Your task to perform on an android device: Add "sony triple a" to the cart on ebay Image 0: 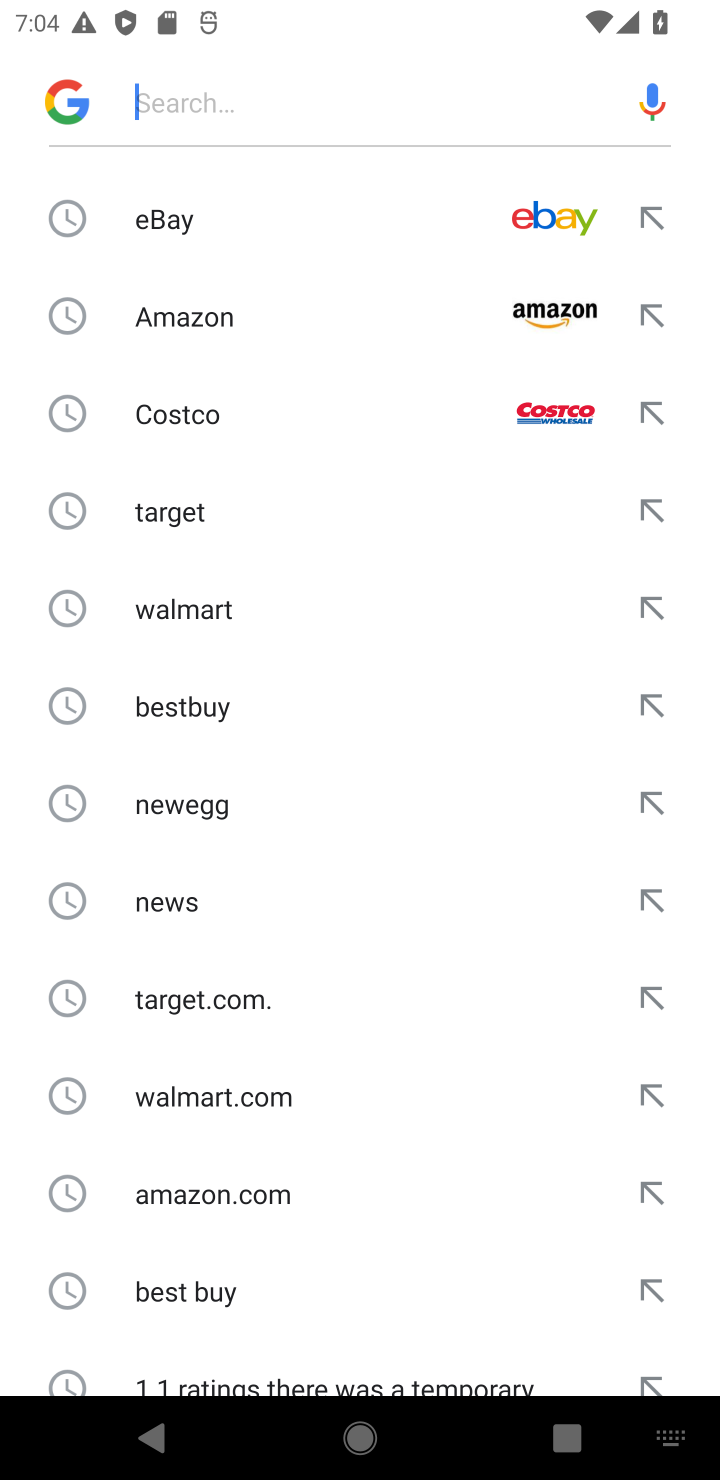
Step 0: press home button
Your task to perform on an android device: Add "sony triple a" to the cart on ebay Image 1: 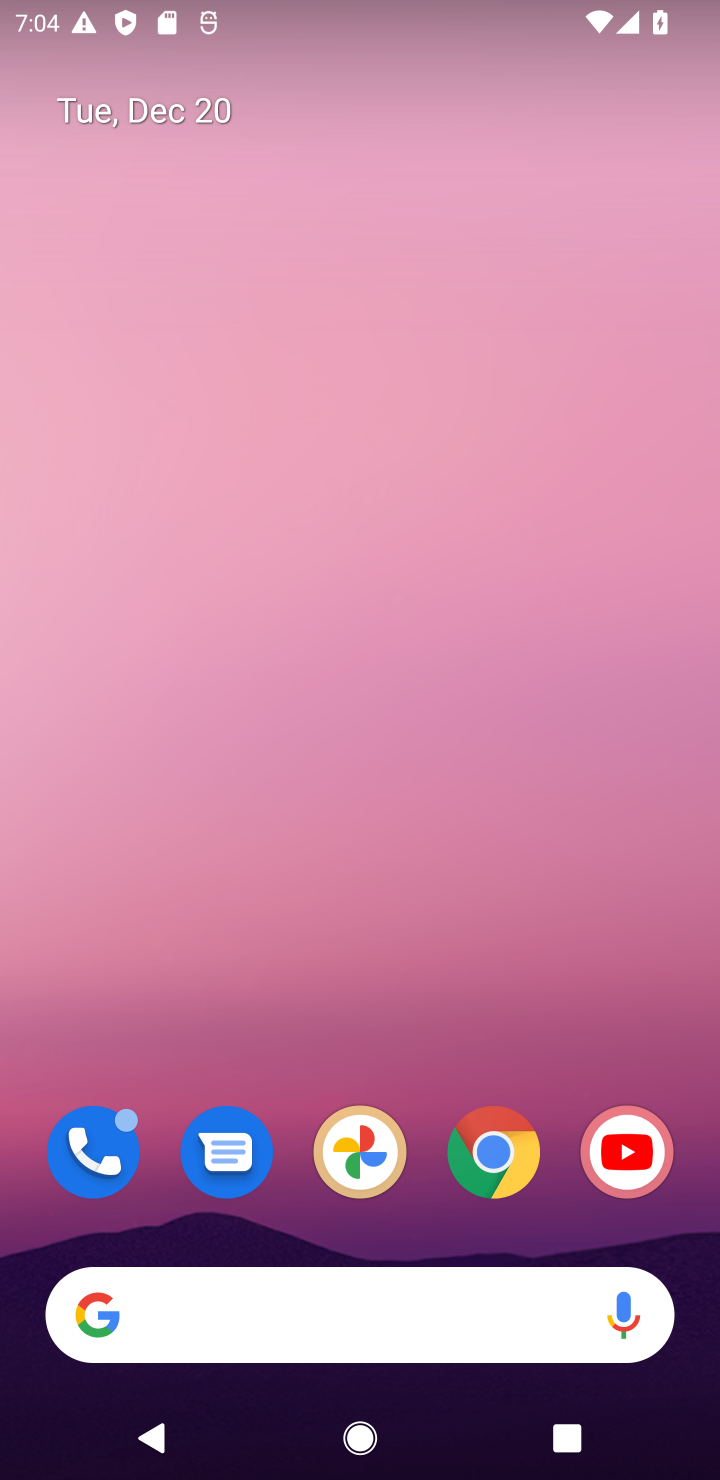
Step 1: click (470, 1123)
Your task to perform on an android device: Add "sony triple a" to the cart on ebay Image 2: 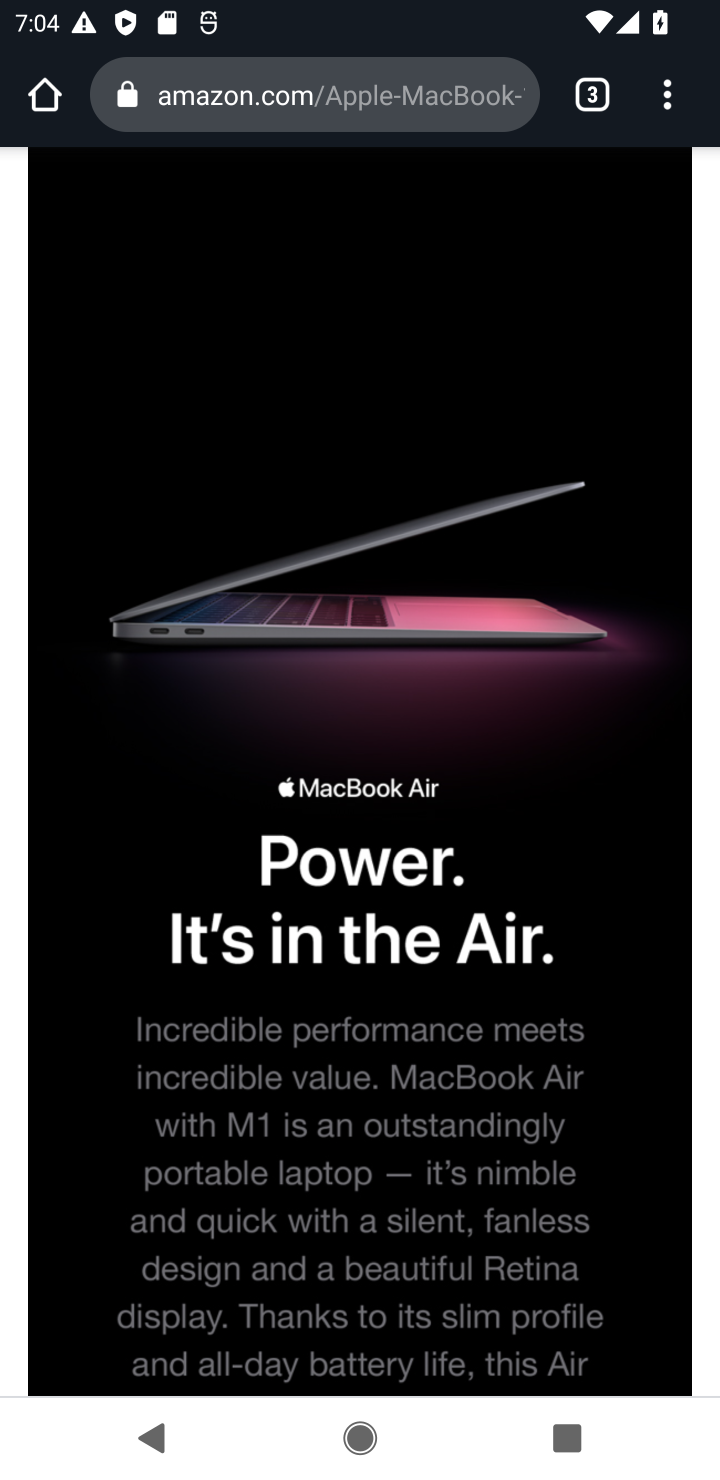
Step 2: click (600, 98)
Your task to perform on an android device: Add "sony triple a" to the cart on ebay Image 3: 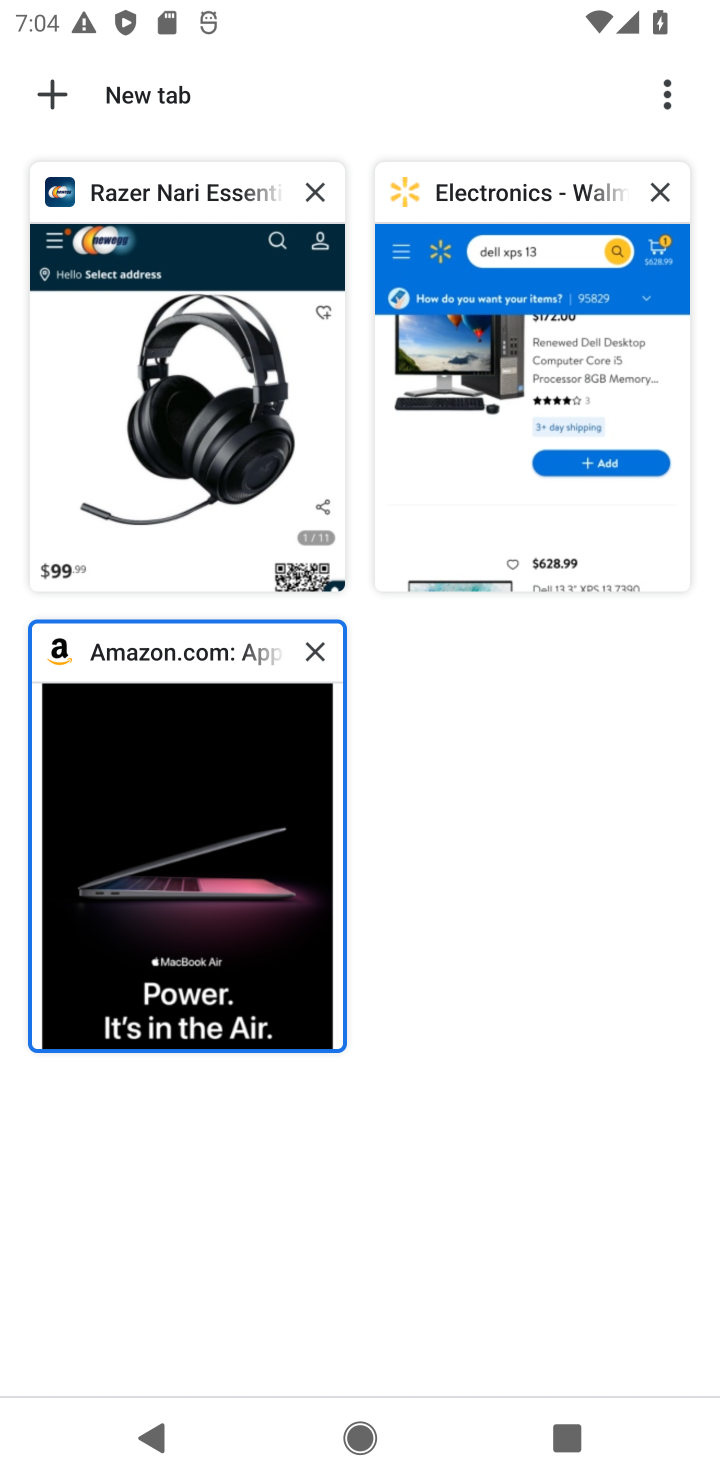
Step 3: click (48, 106)
Your task to perform on an android device: Add "sony triple a" to the cart on ebay Image 4: 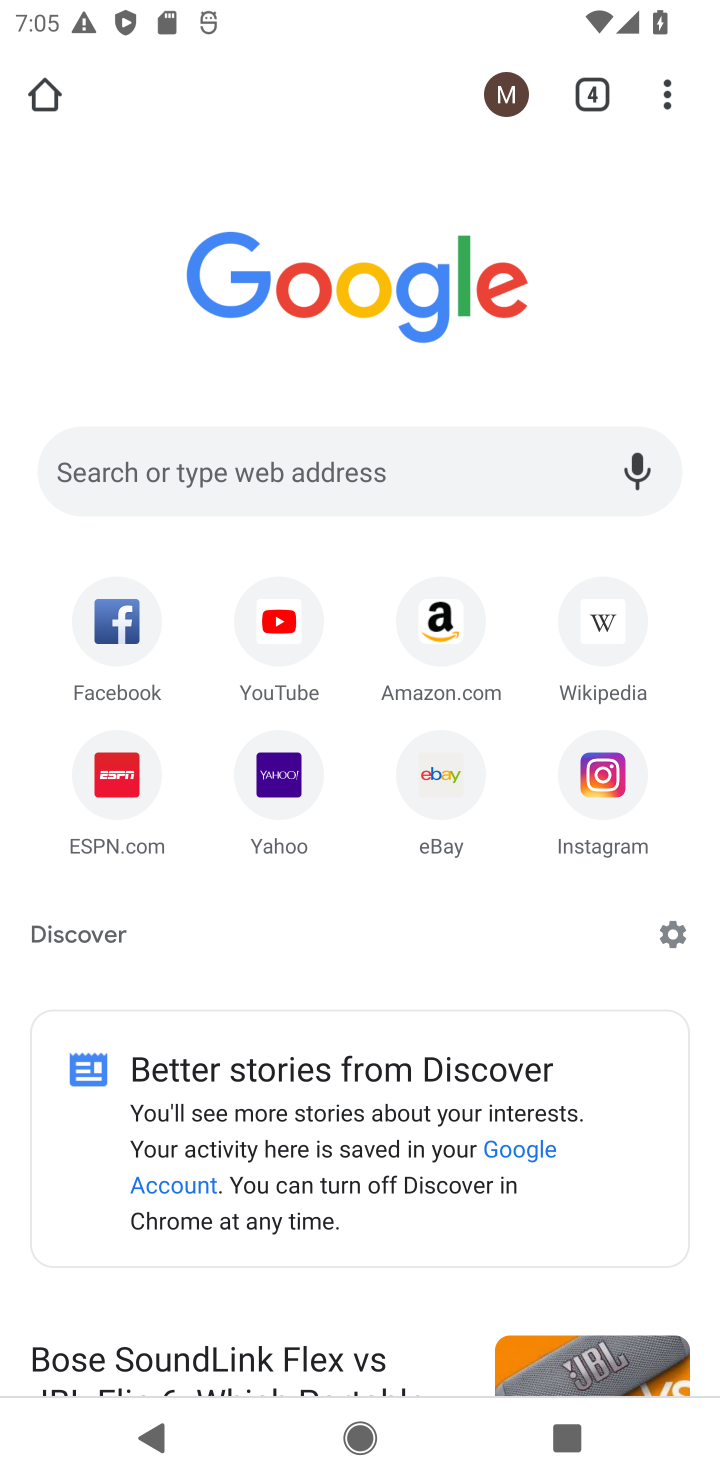
Step 4: click (441, 756)
Your task to perform on an android device: Add "sony triple a" to the cart on ebay Image 5: 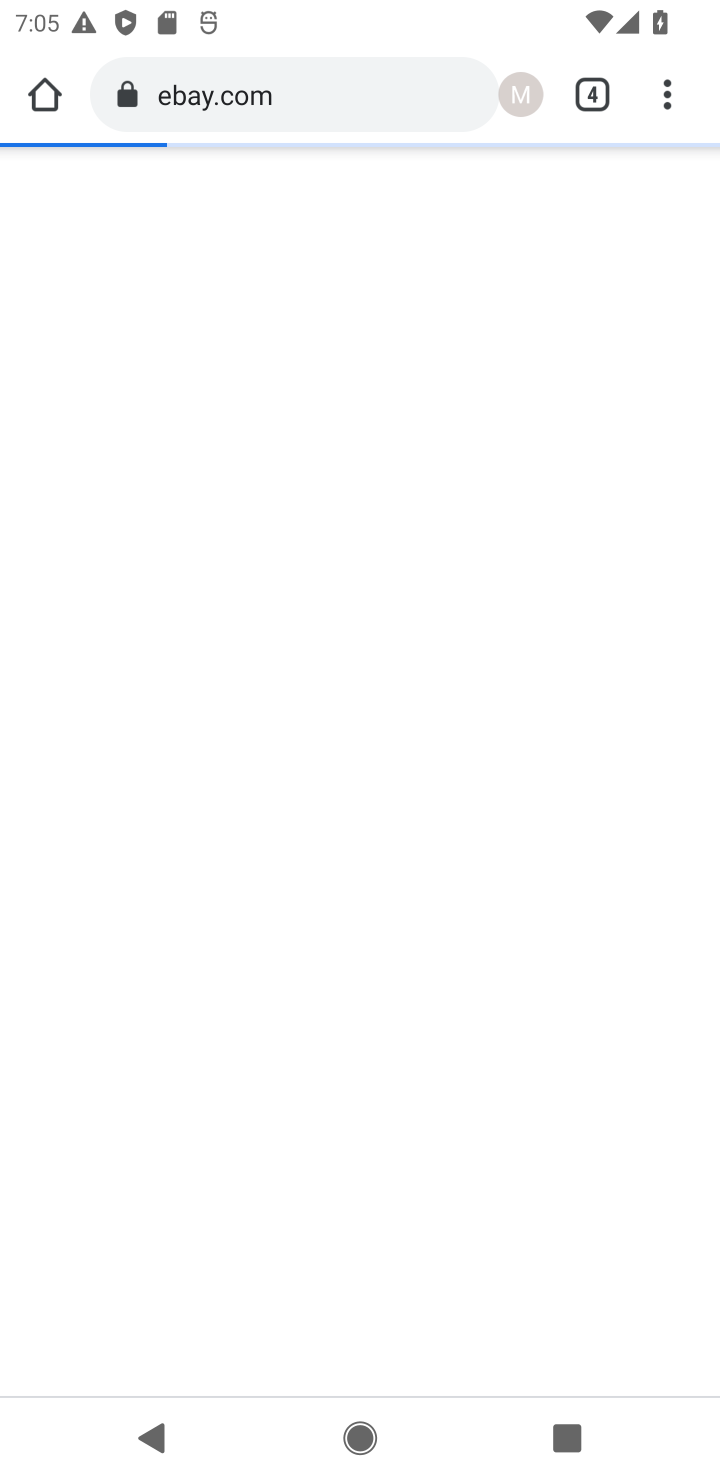
Step 5: click (441, 756)
Your task to perform on an android device: Add "sony triple a" to the cart on ebay Image 6: 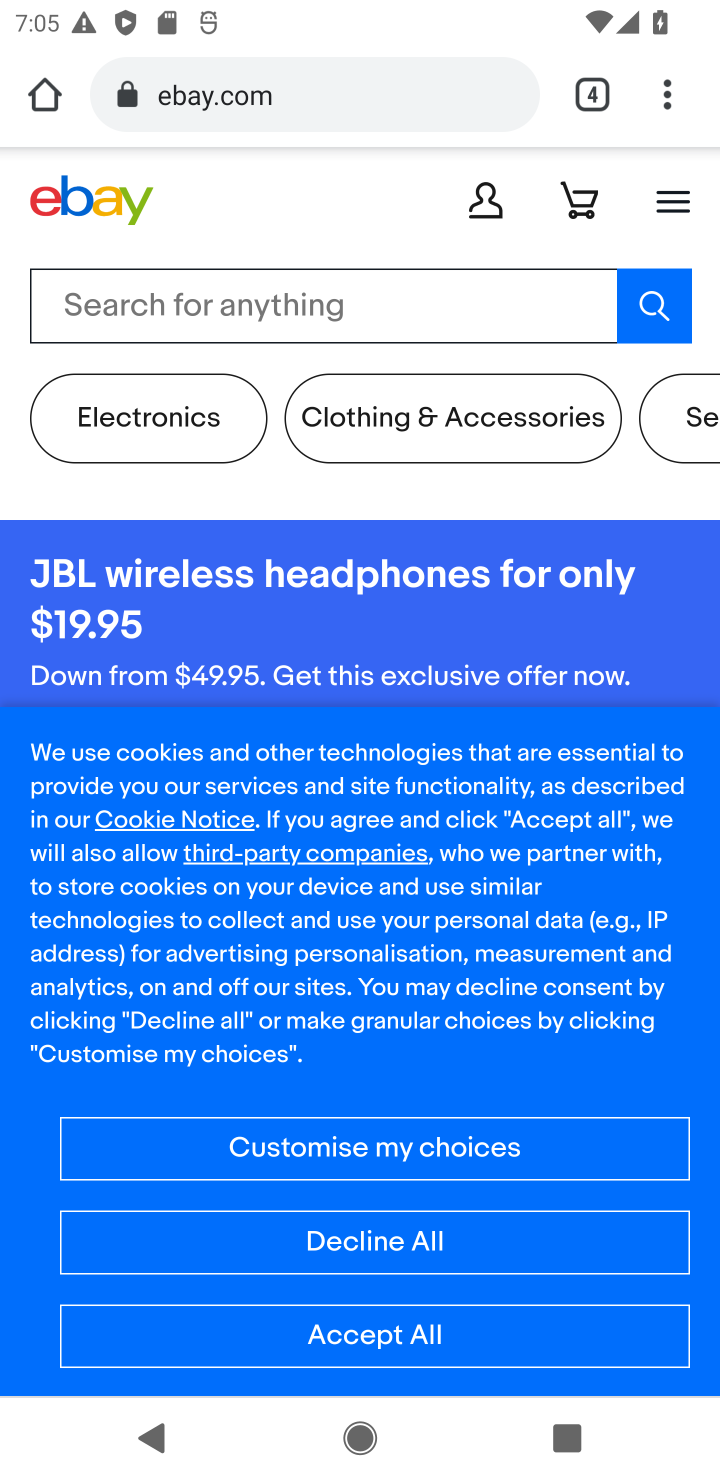
Step 6: click (359, 1254)
Your task to perform on an android device: Add "sony triple a" to the cart on ebay Image 7: 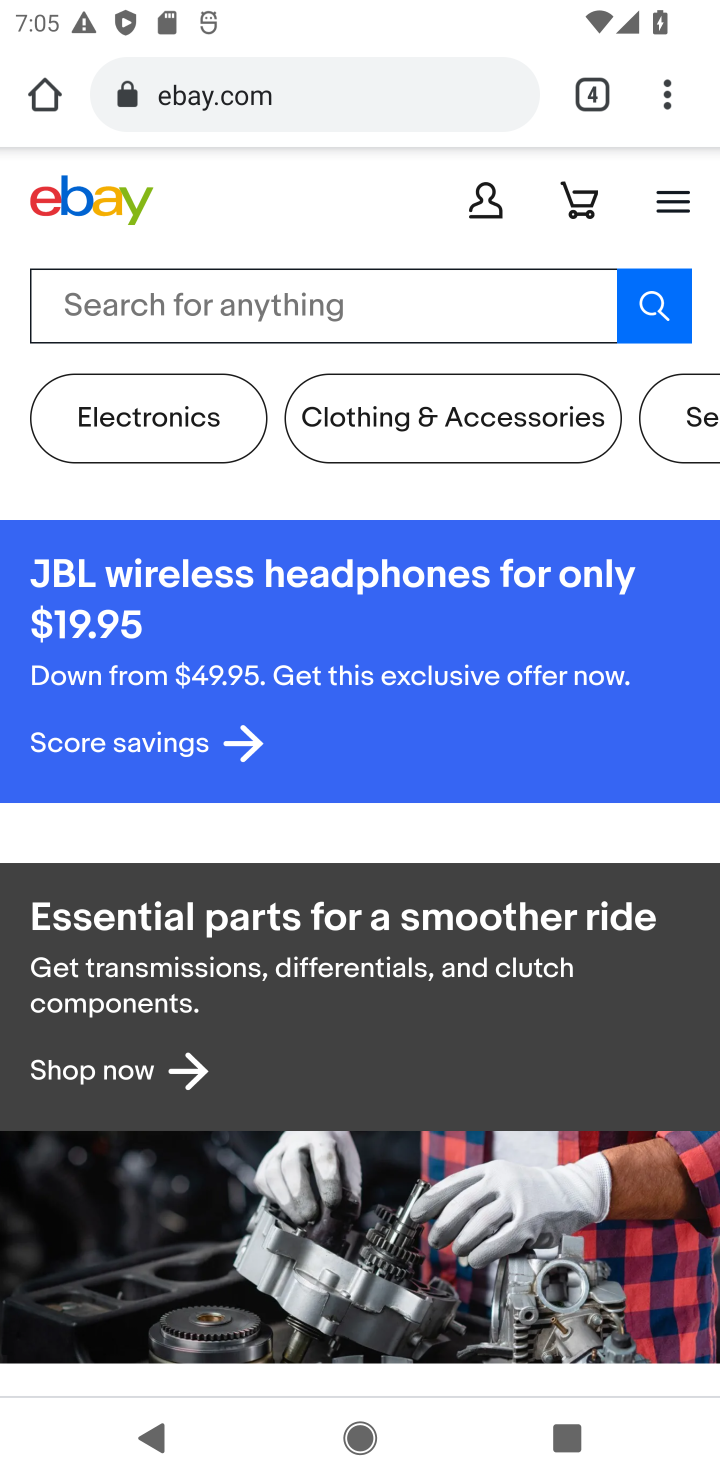
Step 7: click (253, 293)
Your task to perform on an android device: Add "sony triple a" to the cart on ebay Image 8: 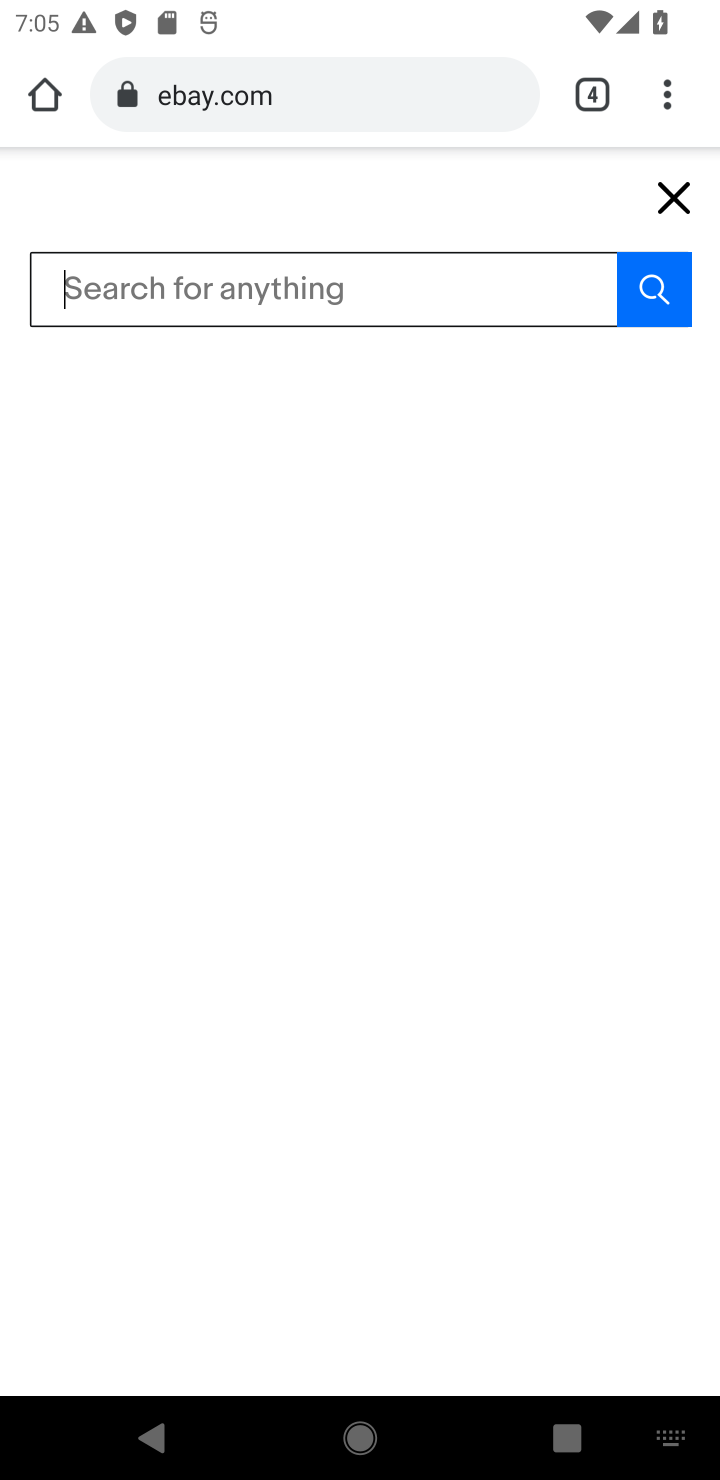
Step 8: type "sony triple a battery"
Your task to perform on an android device: Add "sony triple a" to the cart on ebay Image 9: 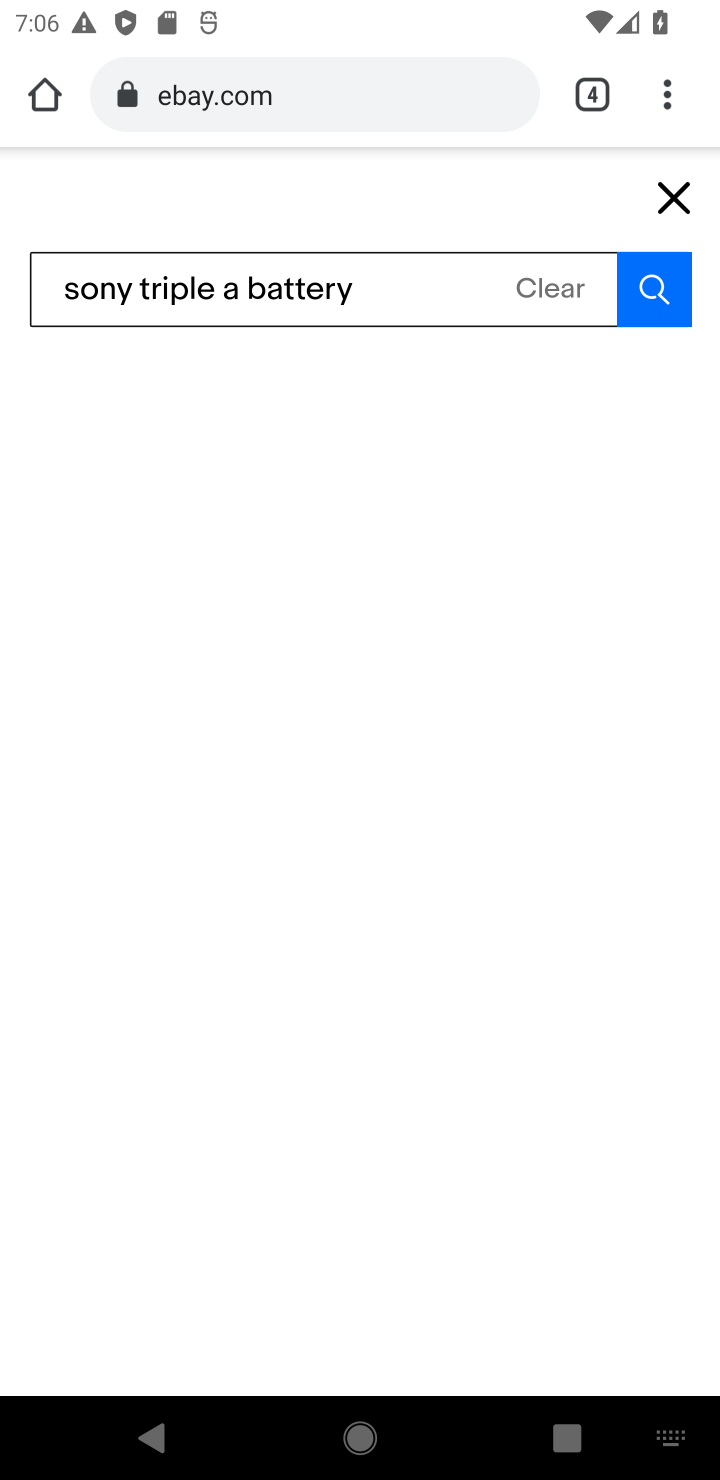
Step 9: click (666, 281)
Your task to perform on an android device: Add "sony triple a" to the cart on ebay Image 10: 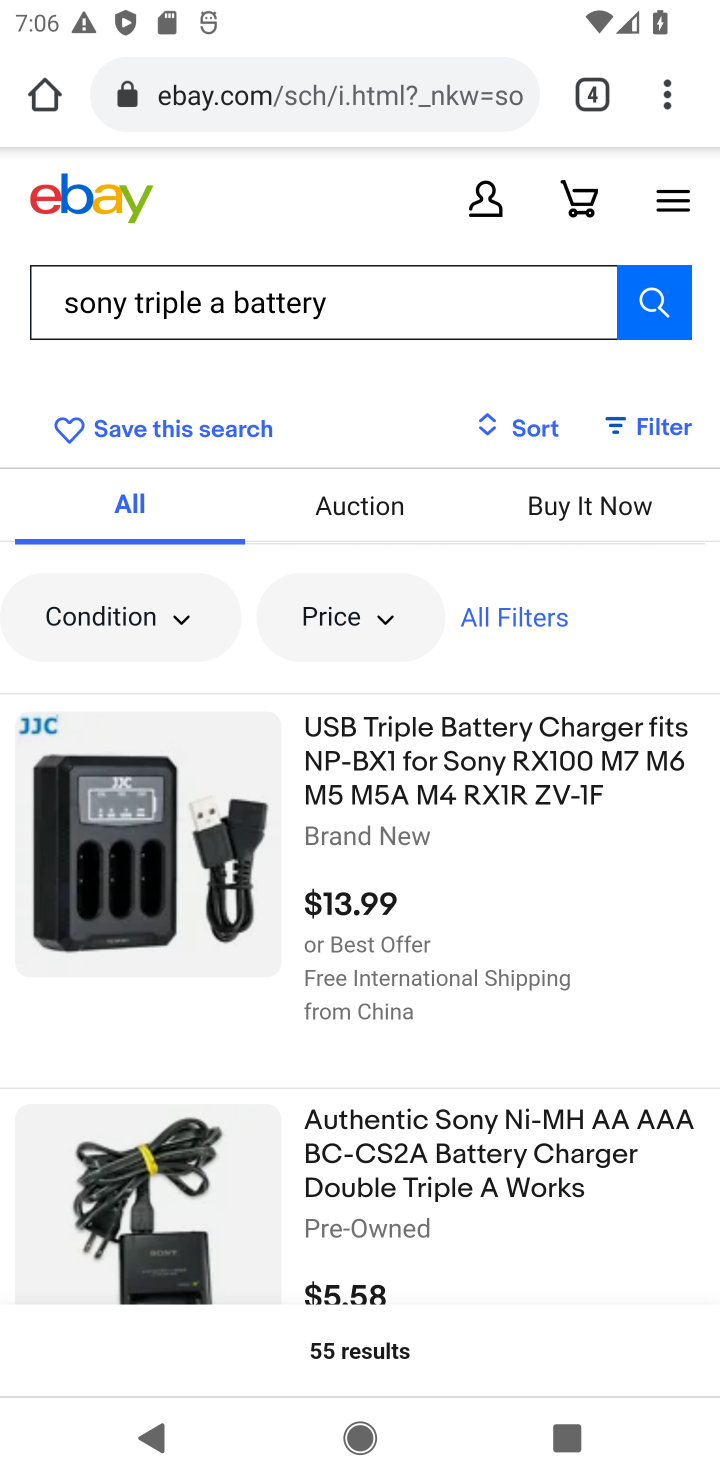
Step 10: task complete